Your task to perform on an android device: When is my next meeting? Image 0: 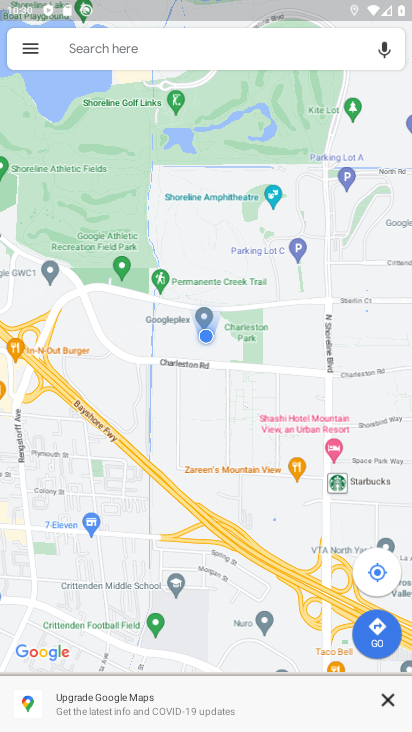
Step 0: press home button
Your task to perform on an android device: When is my next meeting? Image 1: 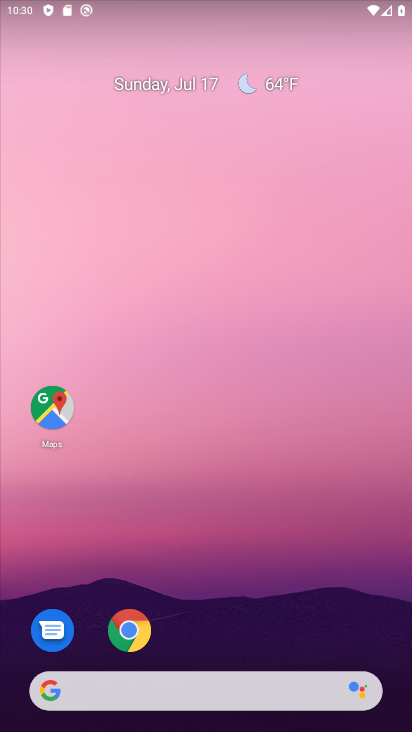
Step 1: drag from (369, 635) to (311, 178)
Your task to perform on an android device: When is my next meeting? Image 2: 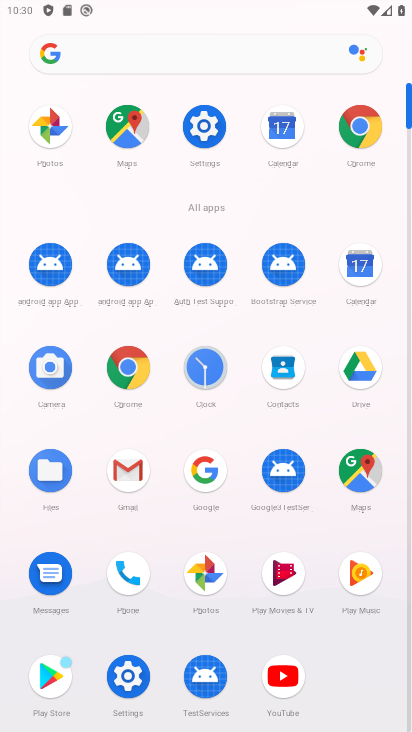
Step 2: click (361, 267)
Your task to perform on an android device: When is my next meeting? Image 3: 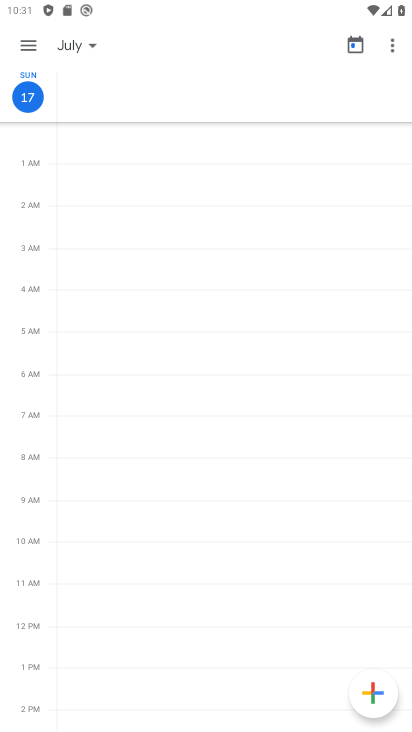
Step 3: click (27, 49)
Your task to perform on an android device: When is my next meeting? Image 4: 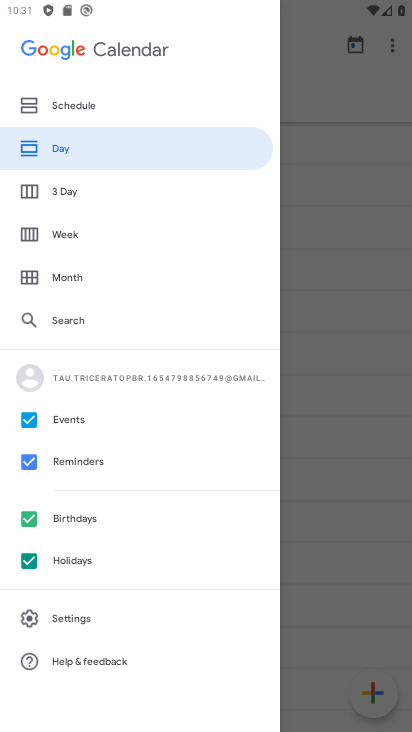
Step 4: click (82, 107)
Your task to perform on an android device: When is my next meeting? Image 5: 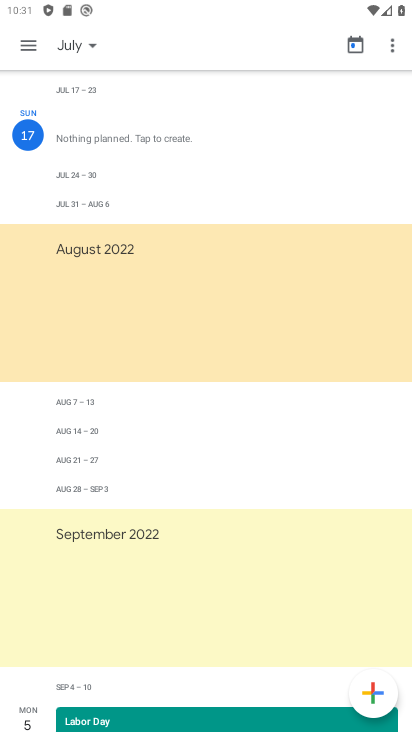
Step 5: task complete